Your task to perform on an android device: Go to Yahoo.com Image 0: 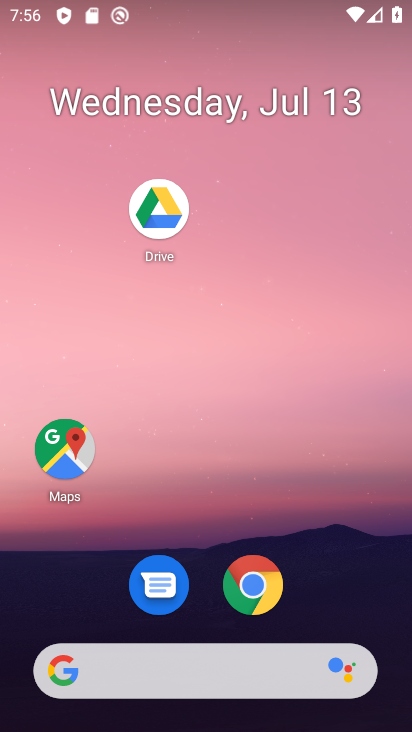
Step 0: click (255, 587)
Your task to perform on an android device: Go to Yahoo.com Image 1: 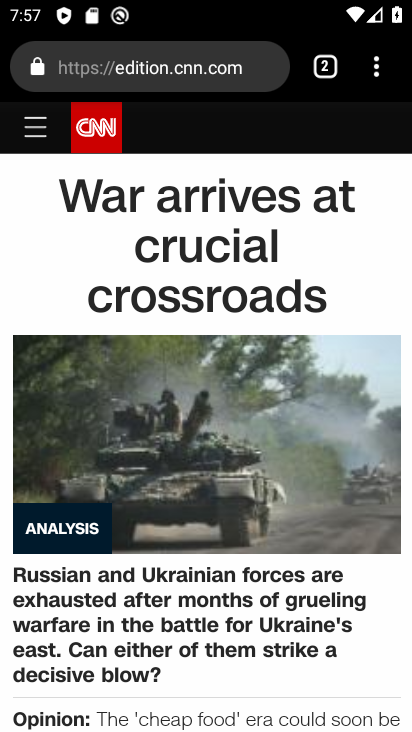
Step 1: drag from (384, 69) to (249, 141)
Your task to perform on an android device: Go to Yahoo.com Image 2: 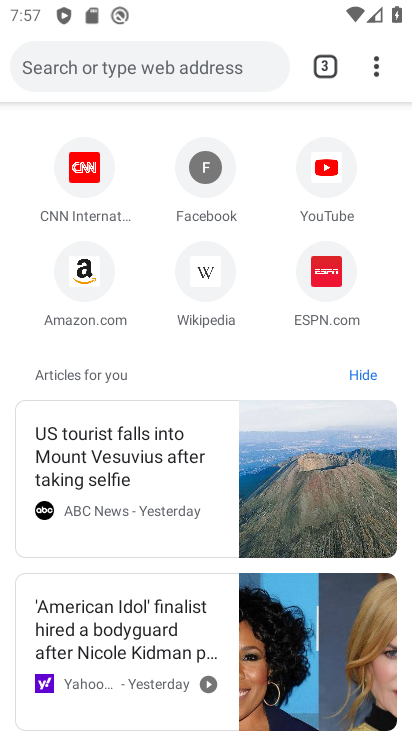
Step 2: click (134, 65)
Your task to perform on an android device: Go to Yahoo.com Image 3: 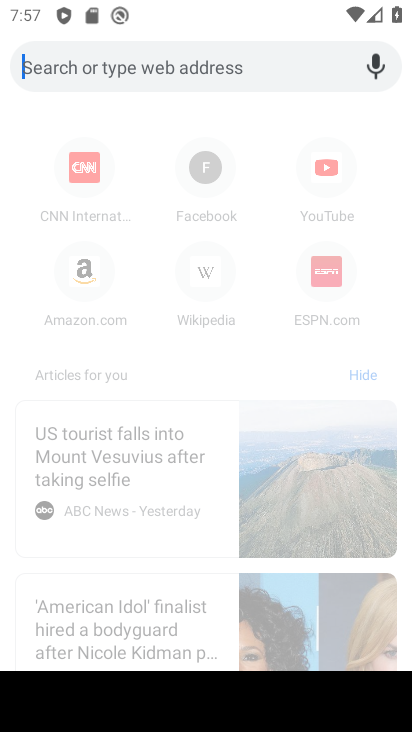
Step 3: type "yahoo.com"
Your task to perform on an android device: Go to Yahoo.com Image 4: 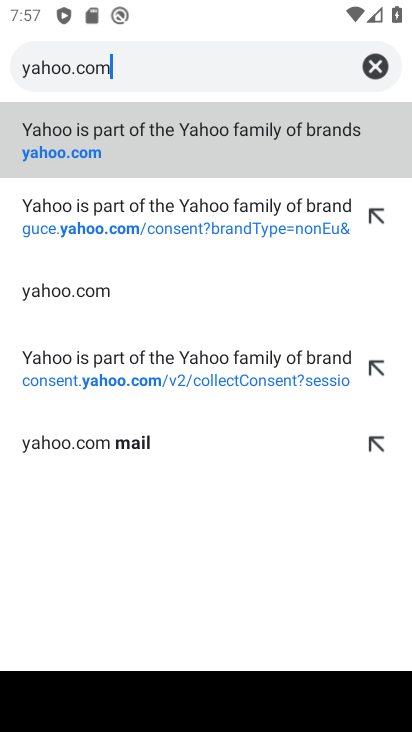
Step 4: click (110, 141)
Your task to perform on an android device: Go to Yahoo.com Image 5: 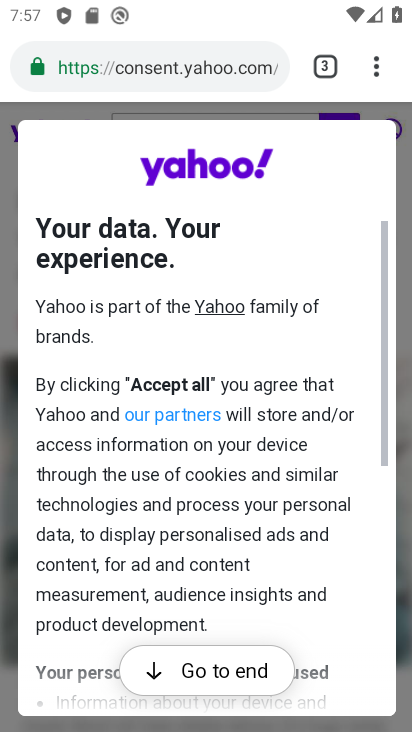
Step 5: drag from (186, 570) to (333, 139)
Your task to perform on an android device: Go to Yahoo.com Image 6: 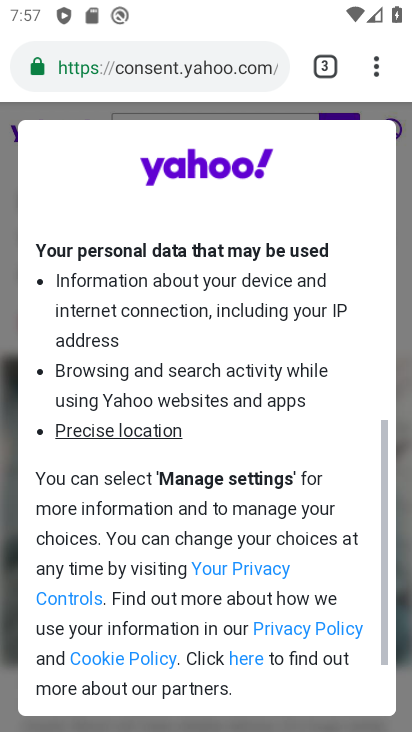
Step 6: drag from (246, 612) to (354, 118)
Your task to perform on an android device: Go to Yahoo.com Image 7: 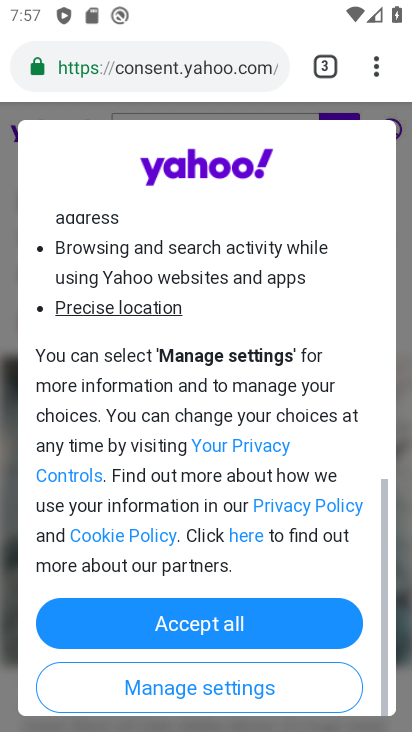
Step 7: click (244, 619)
Your task to perform on an android device: Go to Yahoo.com Image 8: 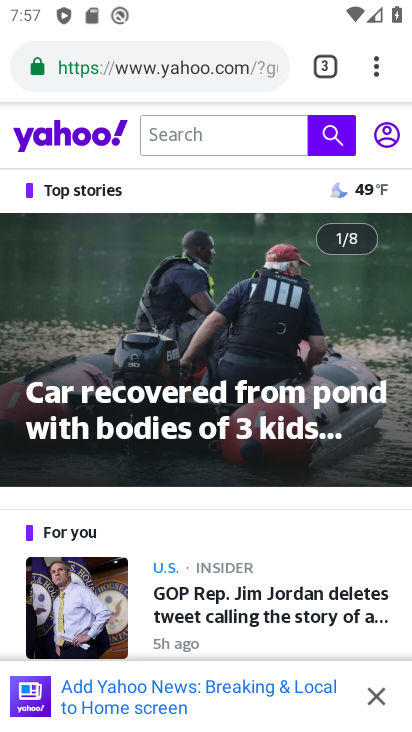
Step 8: task complete